Your task to perform on an android device: Open Yahoo.com Image 0: 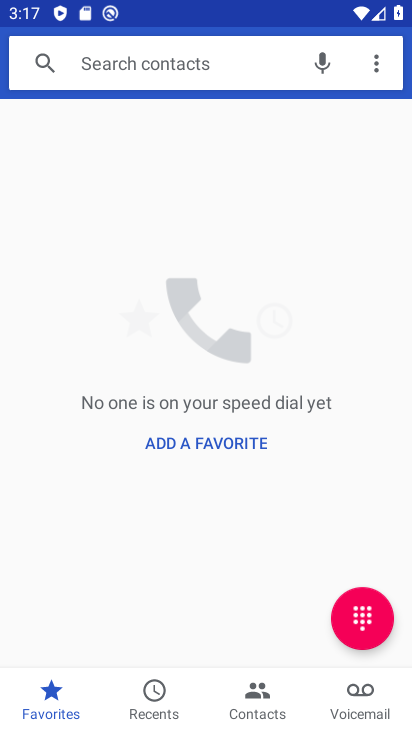
Step 0: press home button
Your task to perform on an android device: Open Yahoo.com Image 1: 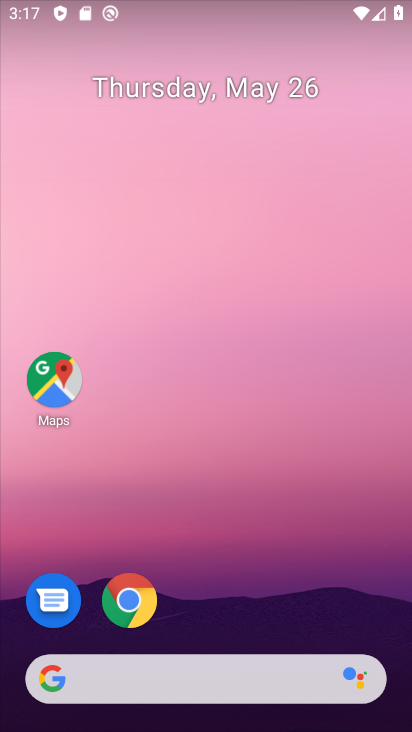
Step 1: click (150, 585)
Your task to perform on an android device: Open Yahoo.com Image 2: 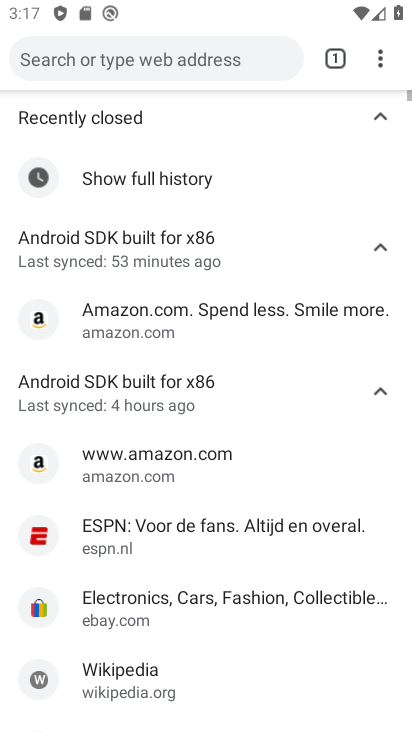
Step 2: click (340, 51)
Your task to perform on an android device: Open Yahoo.com Image 3: 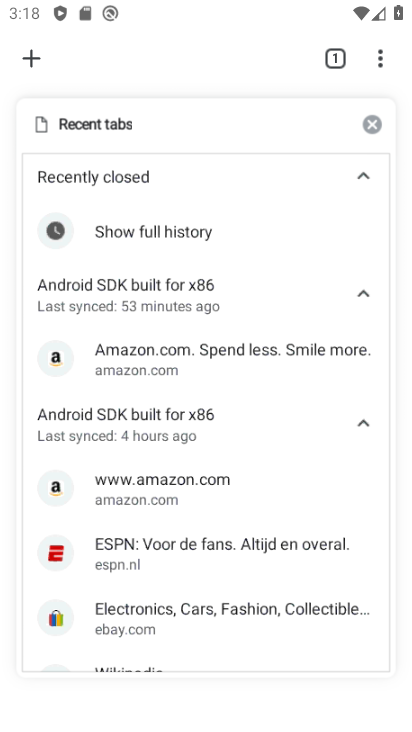
Step 3: click (27, 57)
Your task to perform on an android device: Open Yahoo.com Image 4: 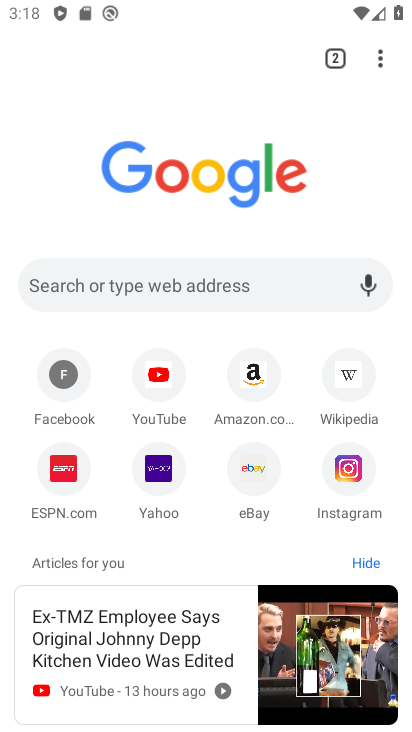
Step 4: click (170, 464)
Your task to perform on an android device: Open Yahoo.com Image 5: 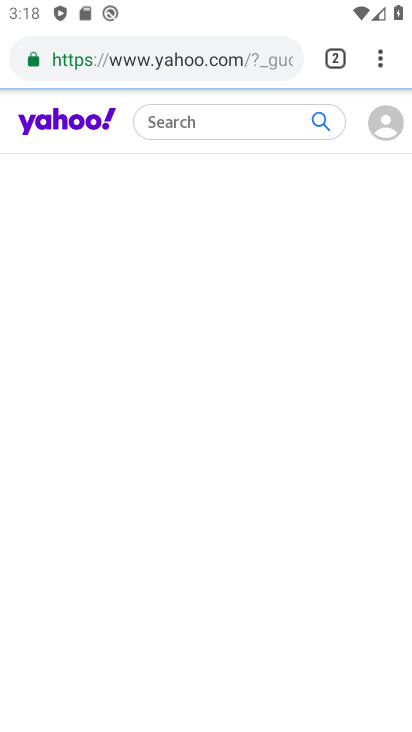
Step 5: task complete